Your task to perform on an android device: open a bookmark in the chrome app Image 0: 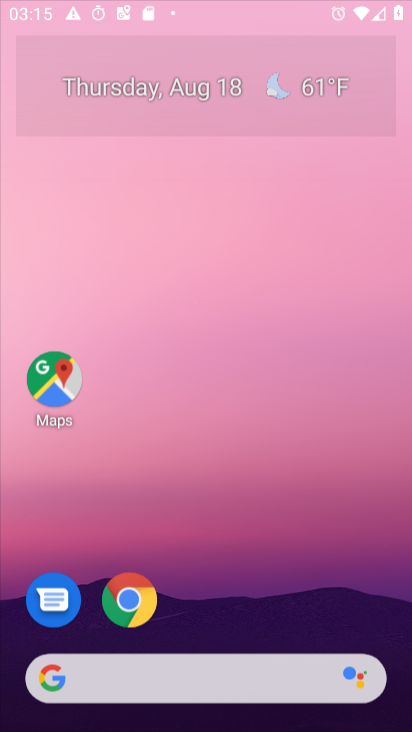
Step 0: press home button
Your task to perform on an android device: open a bookmark in the chrome app Image 1: 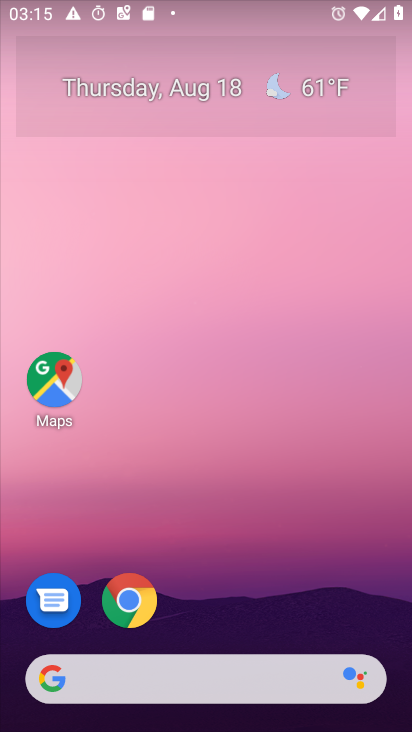
Step 1: click (132, 601)
Your task to perform on an android device: open a bookmark in the chrome app Image 2: 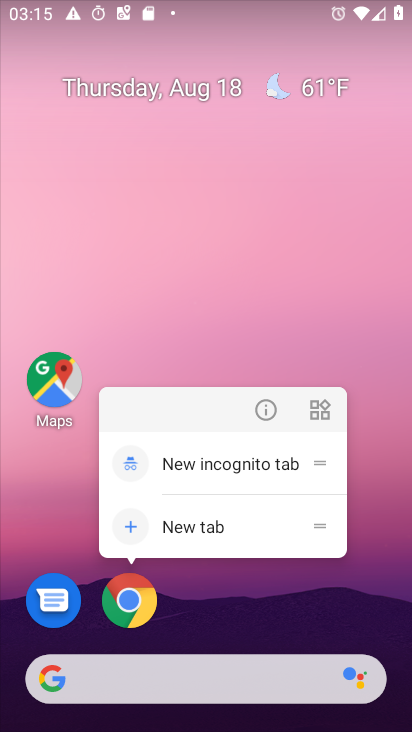
Step 2: click (131, 601)
Your task to perform on an android device: open a bookmark in the chrome app Image 3: 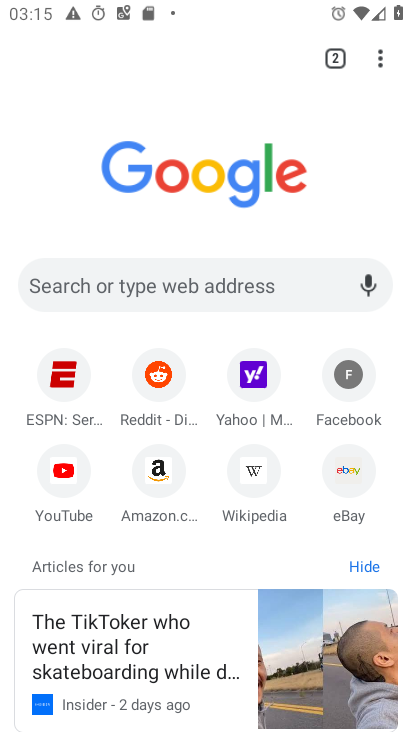
Step 3: drag from (382, 56) to (180, 242)
Your task to perform on an android device: open a bookmark in the chrome app Image 4: 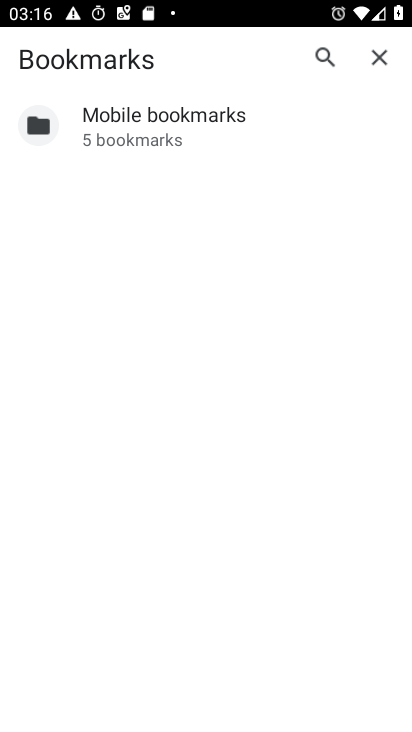
Step 4: click (163, 130)
Your task to perform on an android device: open a bookmark in the chrome app Image 5: 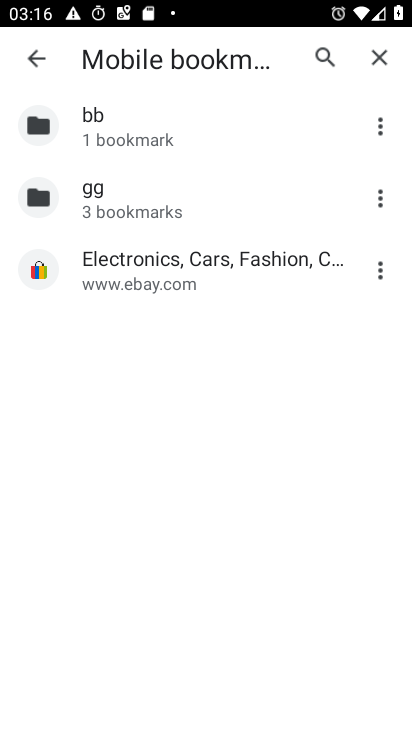
Step 5: click (107, 211)
Your task to perform on an android device: open a bookmark in the chrome app Image 6: 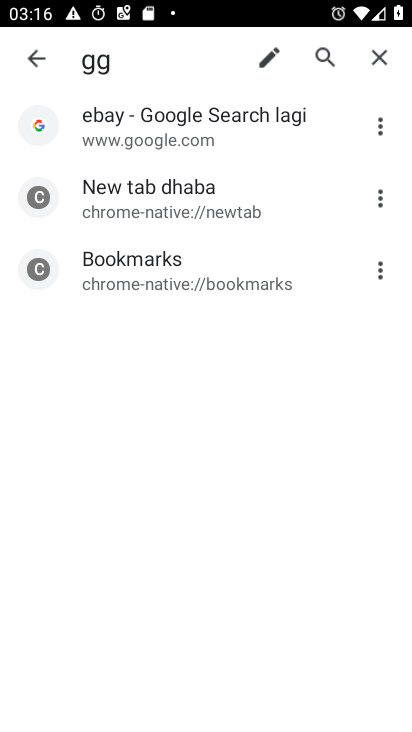
Step 6: click (130, 130)
Your task to perform on an android device: open a bookmark in the chrome app Image 7: 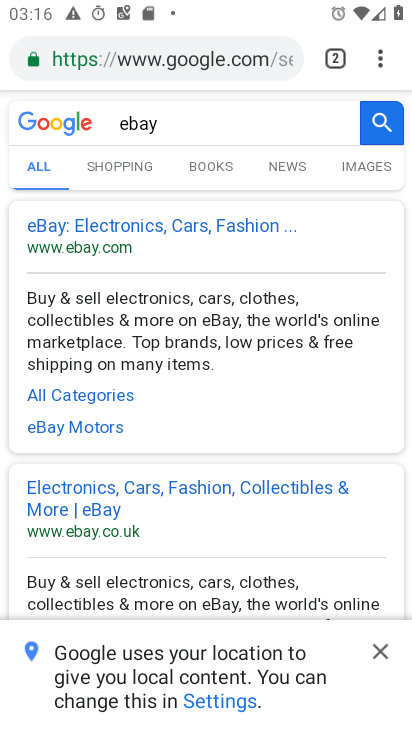
Step 7: task complete